Your task to perform on an android device: Open calendar and show me the third week of next month Image 0: 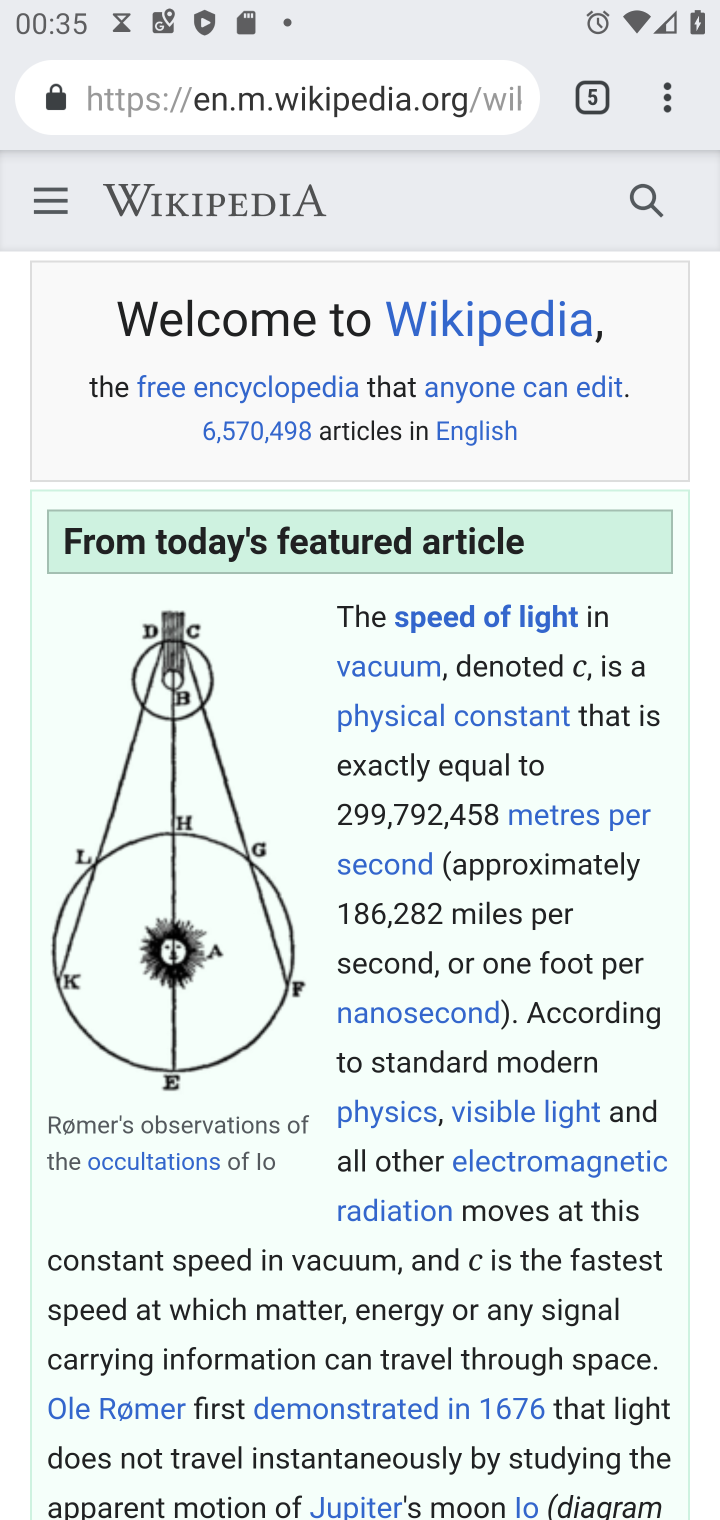
Step 0: press home button
Your task to perform on an android device: Open calendar and show me the third week of next month Image 1: 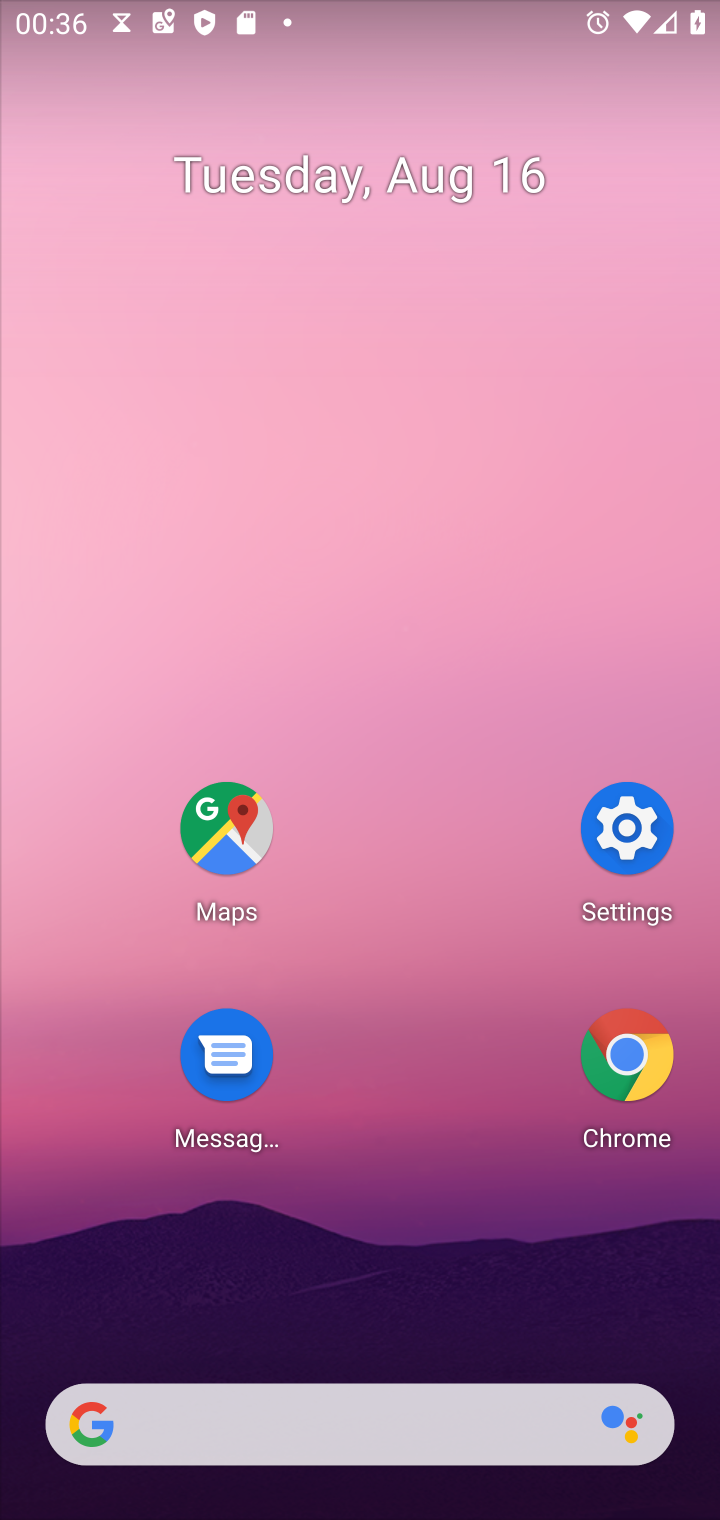
Step 1: drag from (341, 1289) to (512, 35)
Your task to perform on an android device: Open calendar and show me the third week of next month Image 2: 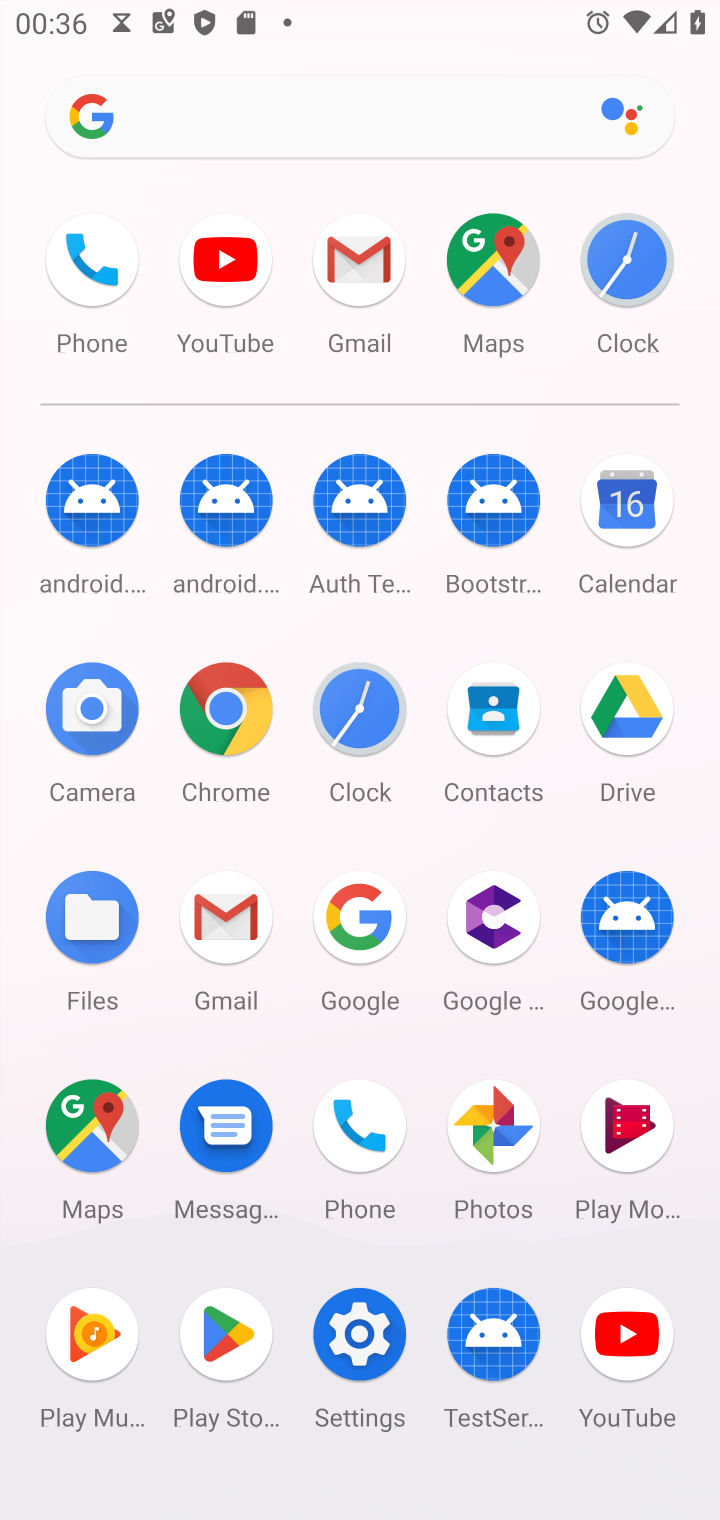
Step 2: click (620, 505)
Your task to perform on an android device: Open calendar and show me the third week of next month Image 3: 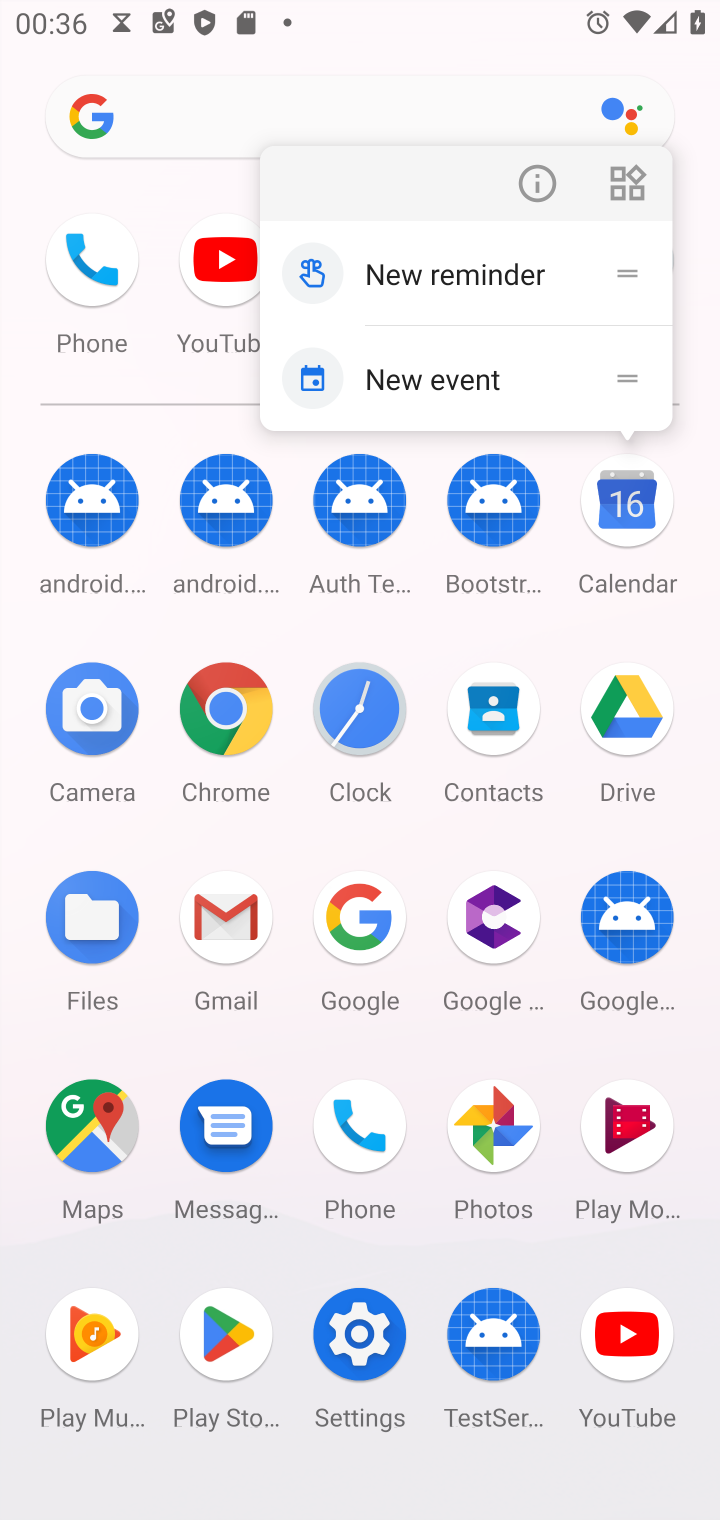
Step 3: click (620, 512)
Your task to perform on an android device: Open calendar and show me the third week of next month Image 4: 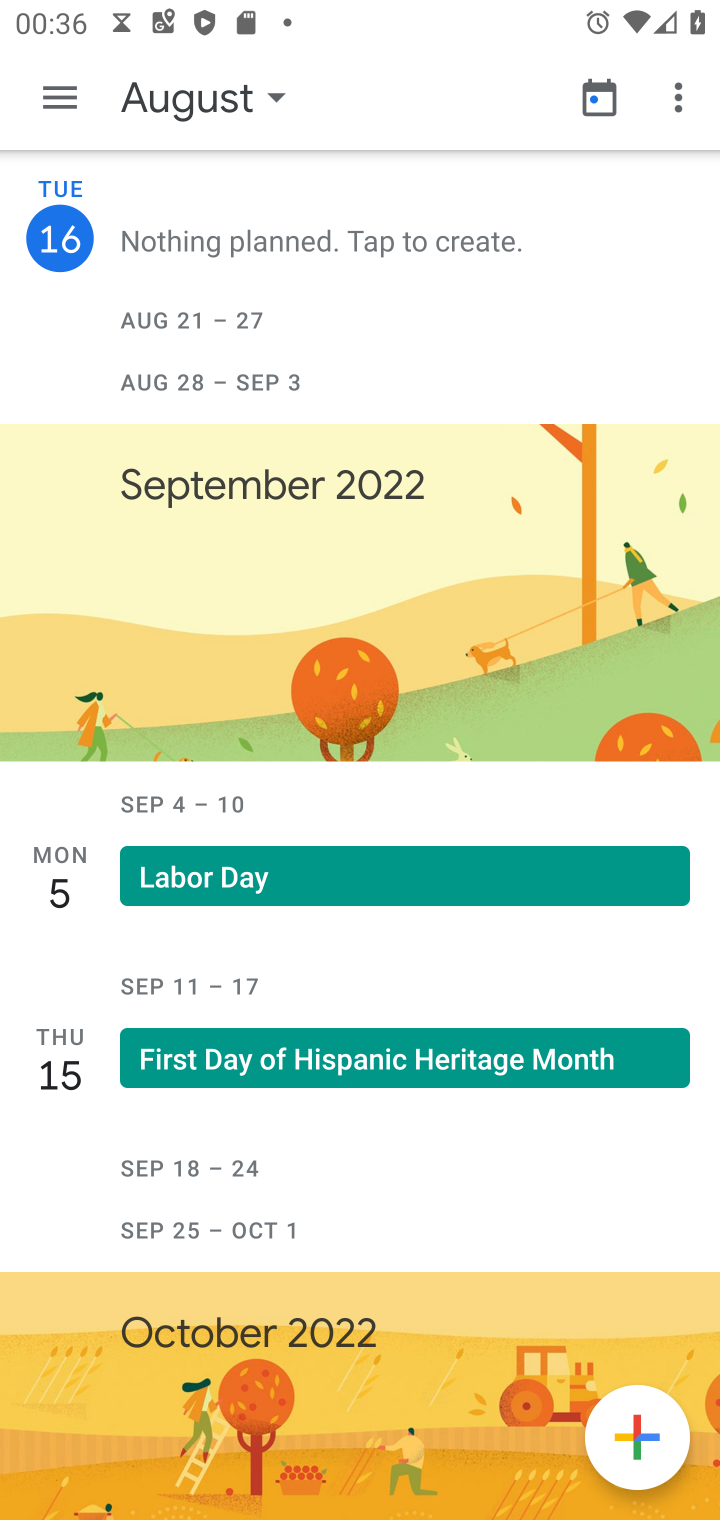
Step 4: drag from (249, 820) to (449, 389)
Your task to perform on an android device: Open calendar and show me the third week of next month Image 5: 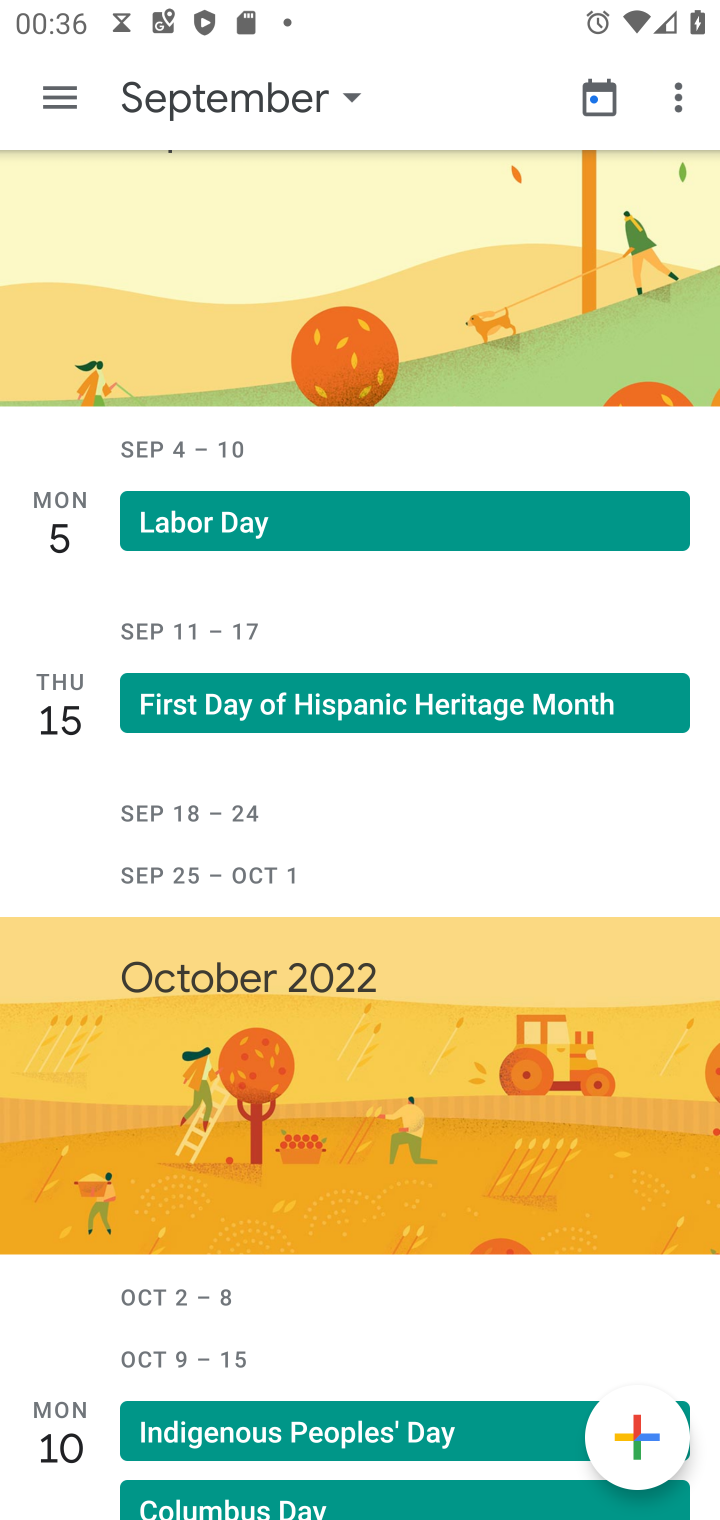
Step 5: click (183, 97)
Your task to perform on an android device: Open calendar and show me the third week of next month Image 6: 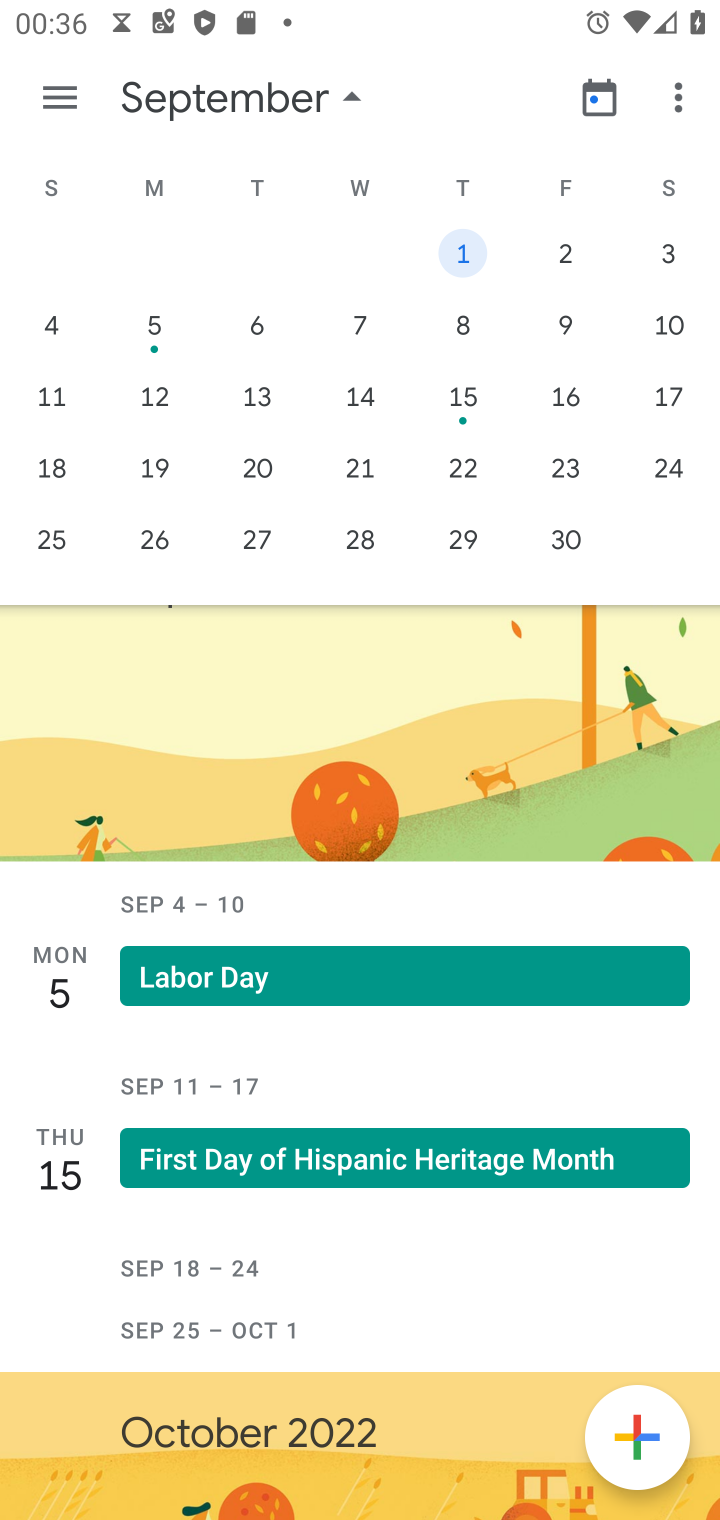
Step 6: click (55, 406)
Your task to perform on an android device: Open calendar and show me the third week of next month Image 7: 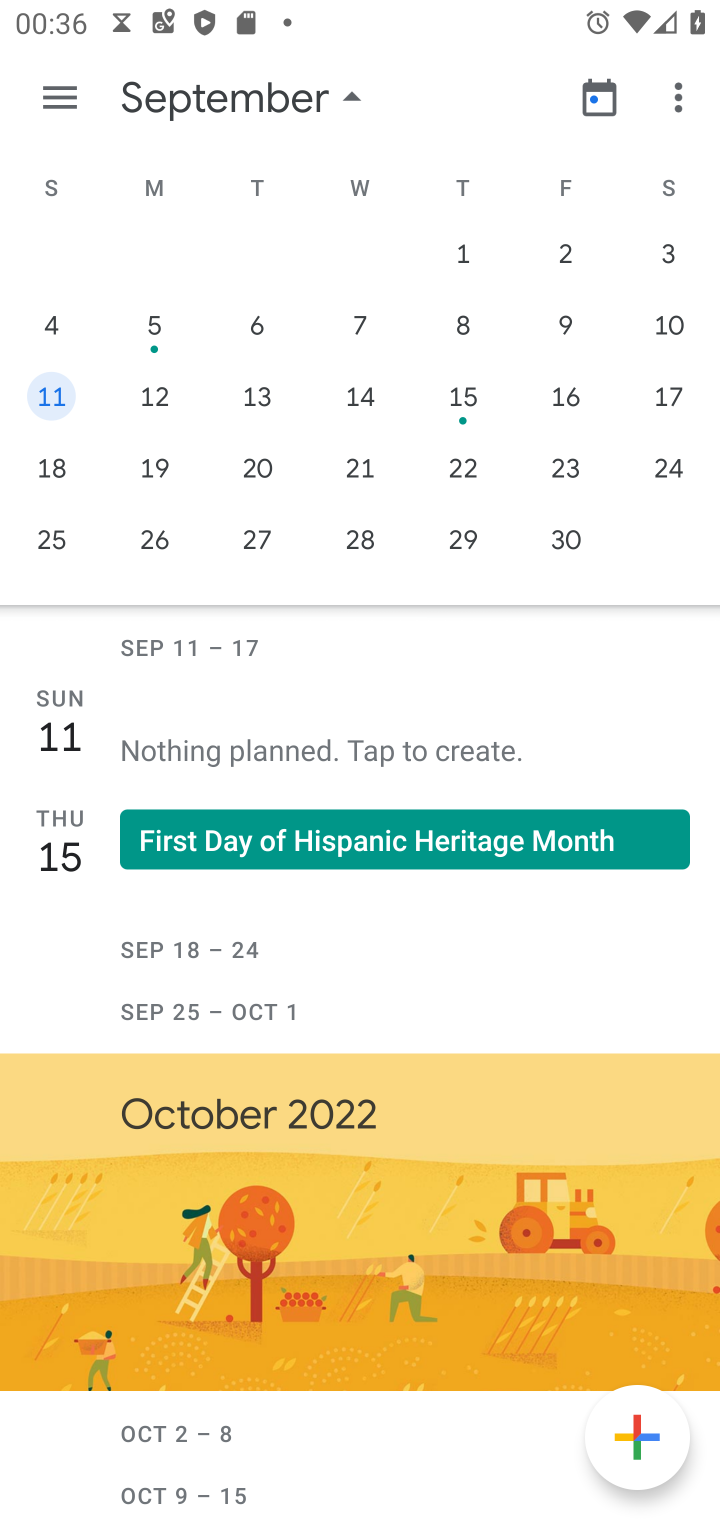
Step 7: click (70, 88)
Your task to perform on an android device: Open calendar and show me the third week of next month Image 8: 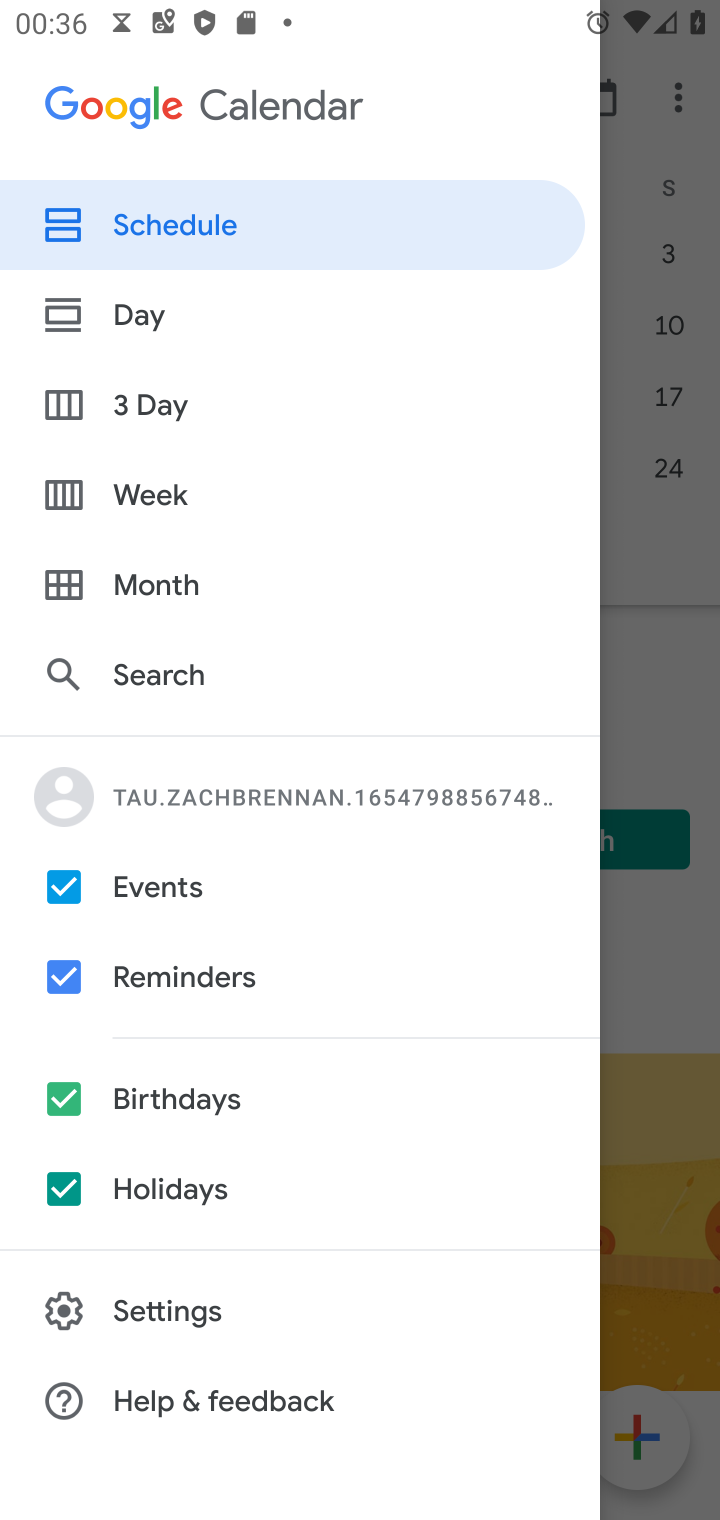
Step 8: click (175, 494)
Your task to perform on an android device: Open calendar and show me the third week of next month Image 9: 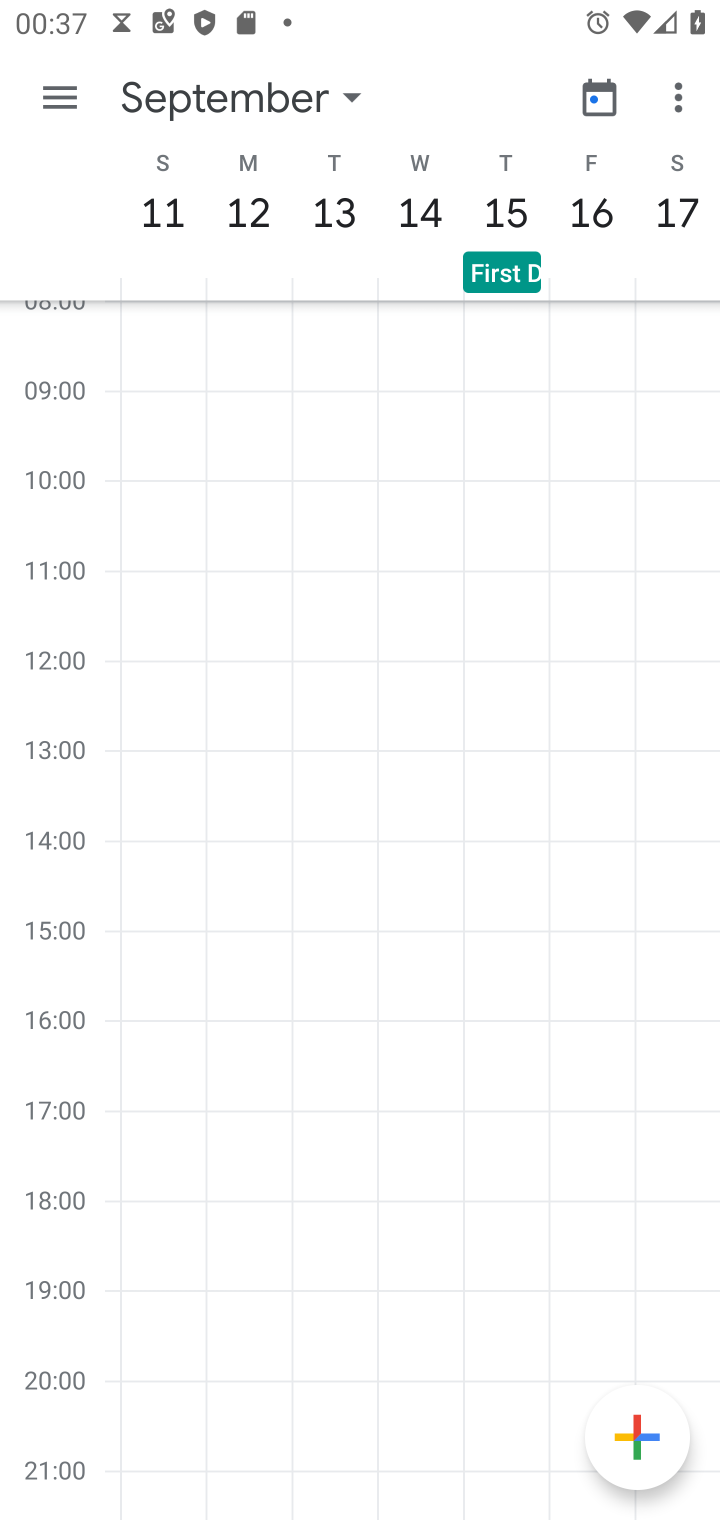
Step 9: task complete